Your task to perform on an android device: all mails in gmail Image 0: 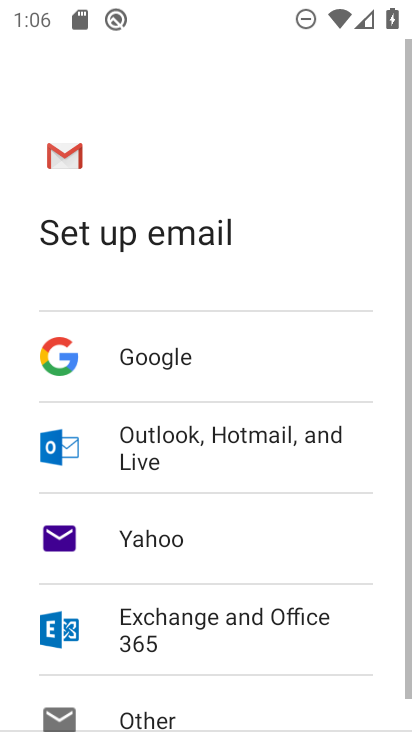
Step 0: press home button
Your task to perform on an android device: all mails in gmail Image 1: 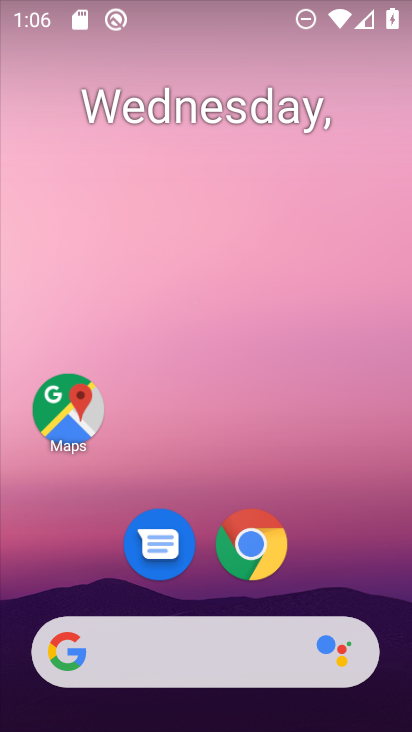
Step 1: drag from (330, 509) to (326, 87)
Your task to perform on an android device: all mails in gmail Image 2: 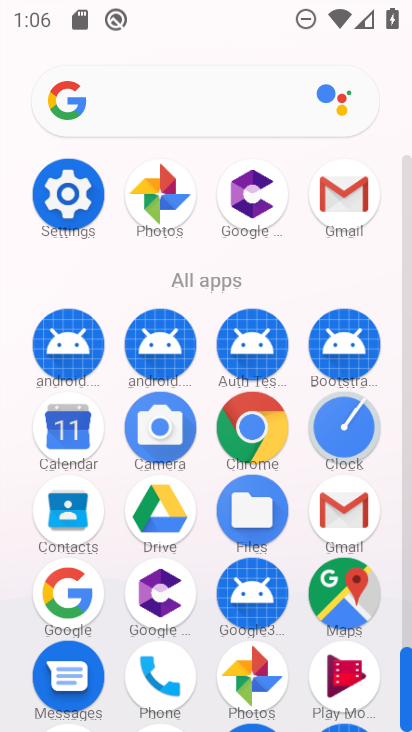
Step 2: click (324, 189)
Your task to perform on an android device: all mails in gmail Image 3: 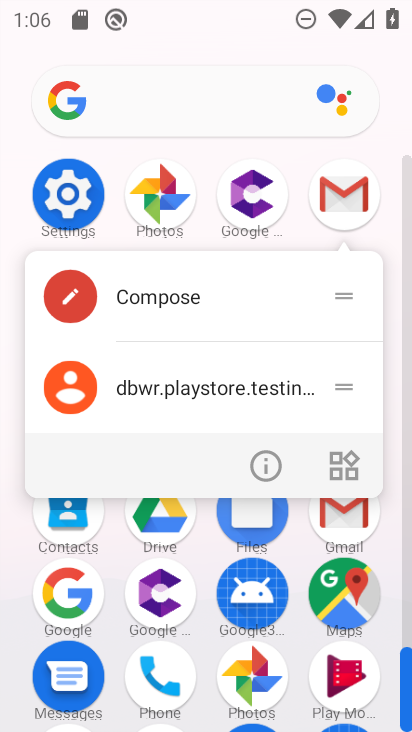
Step 3: click (336, 193)
Your task to perform on an android device: all mails in gmail Image 4: 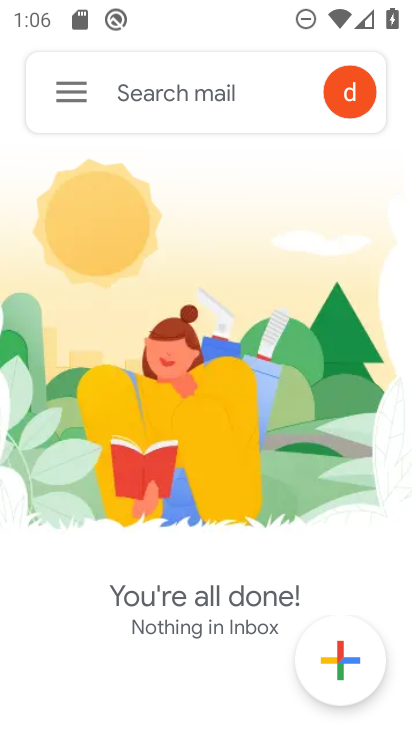
Step 4: click (72, 87)
Your task to perform on an android device: all mails in gmail Image 5: 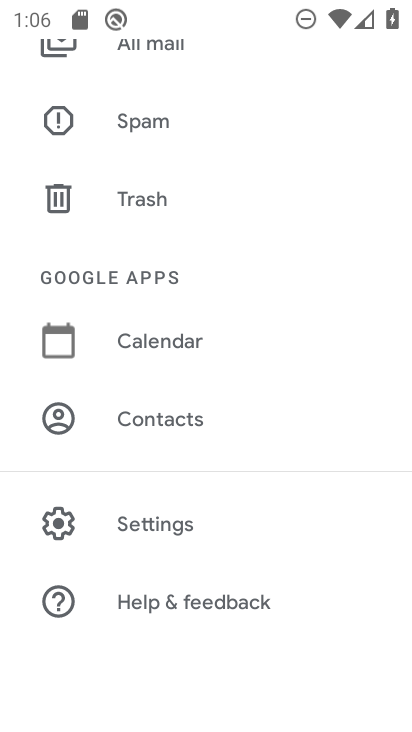
Step 5: drag from (185, 179) to (234, 307)
Your task to perform on an android device: all mails in gmail Image 6: 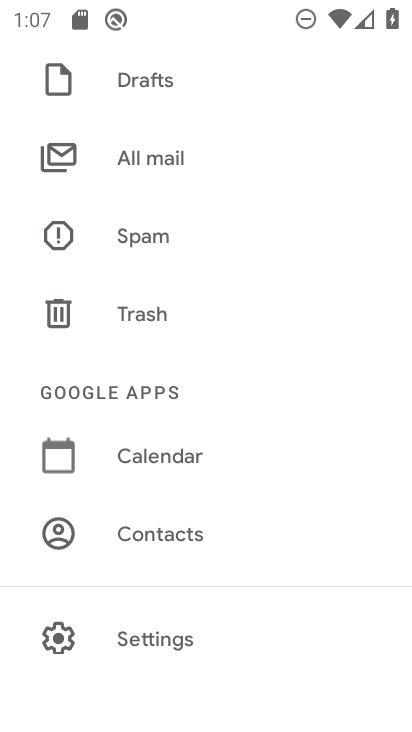
Step 6: click (208, 169)
Your task to perform on an android device: all mails in gmail Image 7: 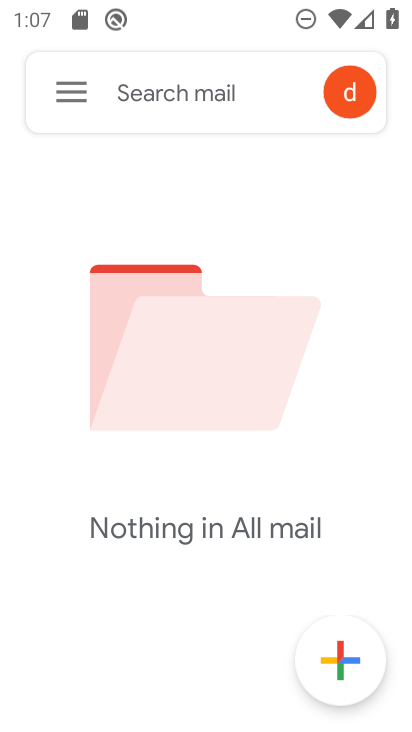
Step 7: task complete